Your task to perform on an android device: Search for pizza restaurants on Maps Image 0: 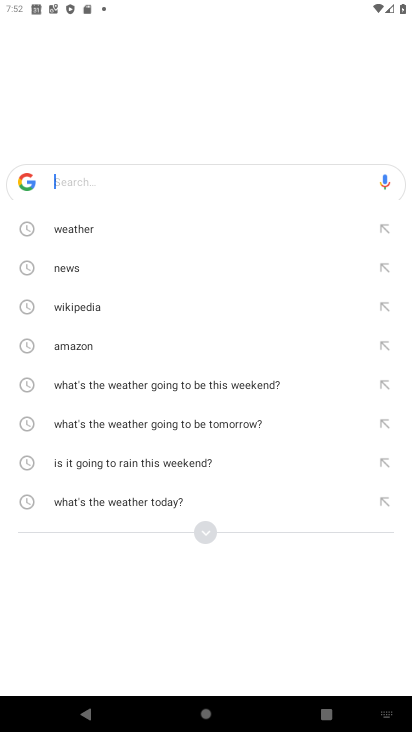
Step 0: press home button
Your task to perform on an android device: Search for pizza restaurants on Maps Image 1: 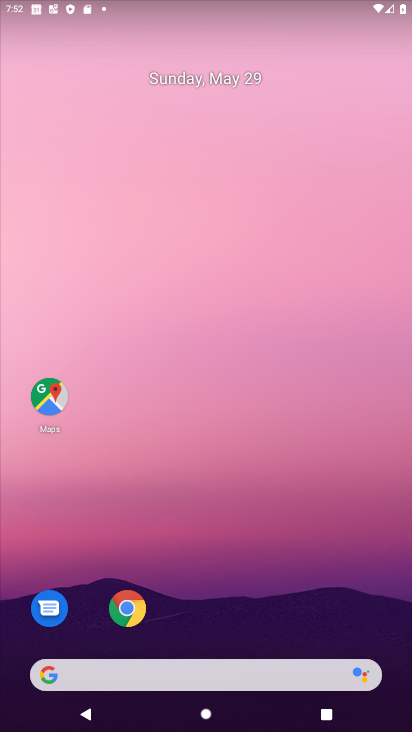
Step 1: click (47, 405)
Your task to perform on an android device: Search for pizza restaurants on Maps Image 2: 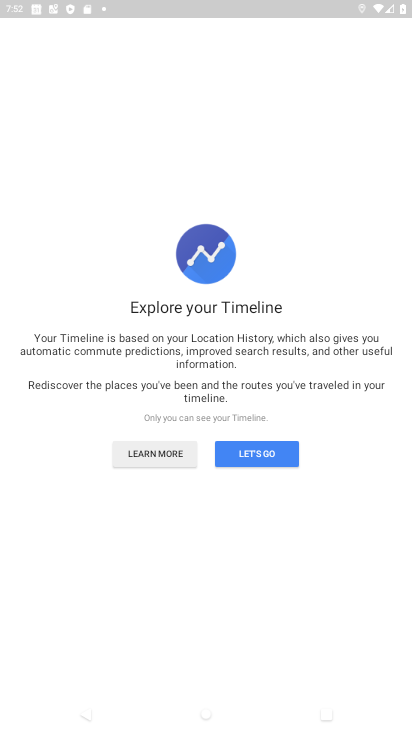
Step 2: click (234, 459)
Your task to perform on an android device: Search for pizza restaurants on Maps Image 3: 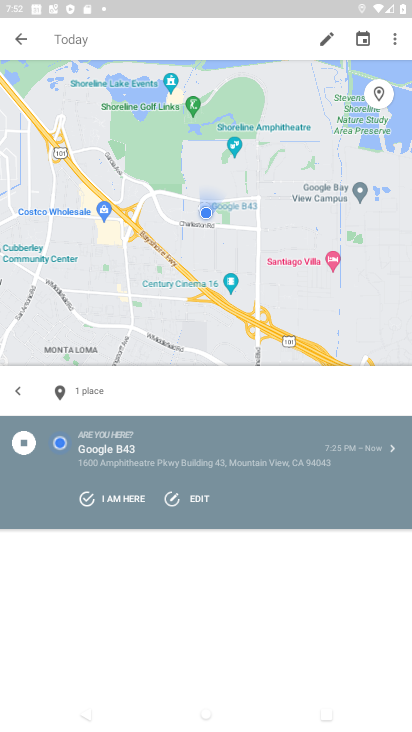
Step 3: click (19, 42)
Your task to perform on an android device: Search for pizza restaurants on Maps Image 4: 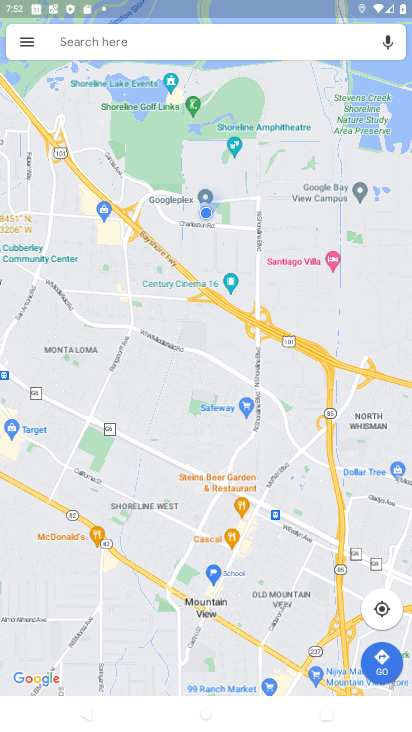
Step 4: click (165, 42)
Your task to perform on an android device: Search for pizza restaurants on Maps Image 5: 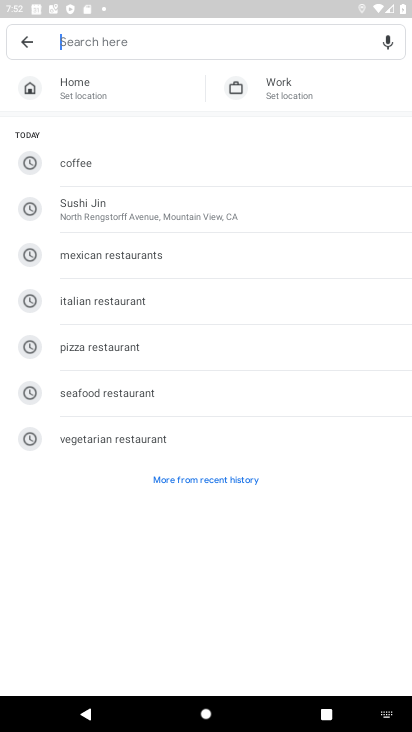
Step 5: click (93, 344)
Your task to perform on an android device: Search for pizza restaurants on Maps Image 6: 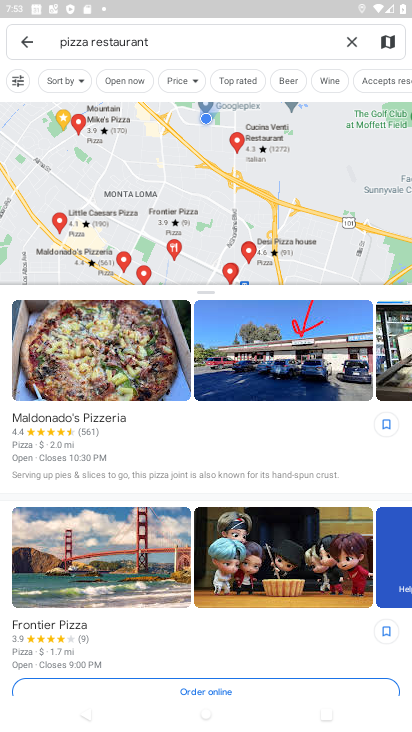
Step 6: task complete